Your task to perform on an android device: turn off sleep mode Image 0: 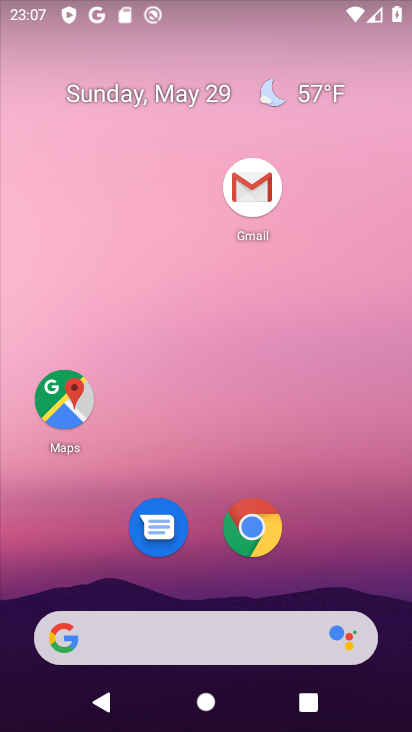
Step 0: drag from (327, 561) to (305, 43)
Your task to perform on an android device: turn off sleep mode Image 1: 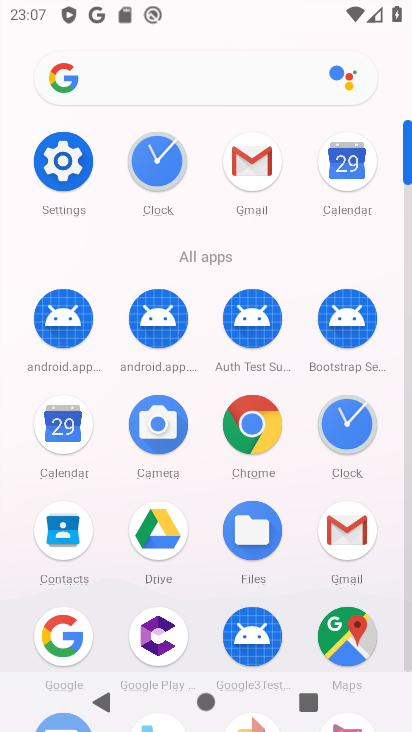
Step 1: click (65, 161)
Your task to perform on an android device: turn off sleep mode Image 2: 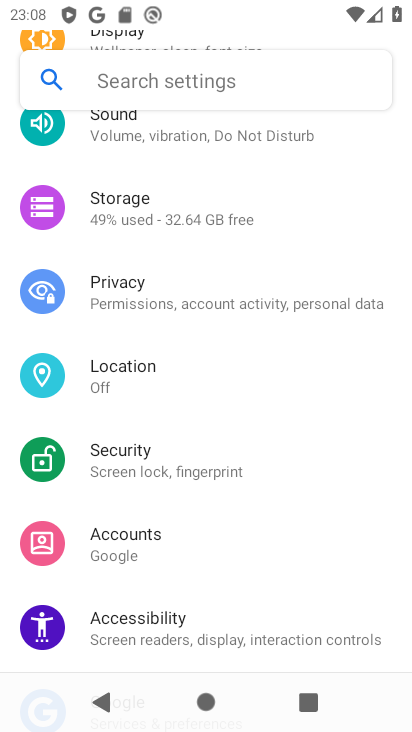
Step 2: drag from (275, 263) to (293, 372)
Your task to perform on an android device: turn off sleep mode Image 3: 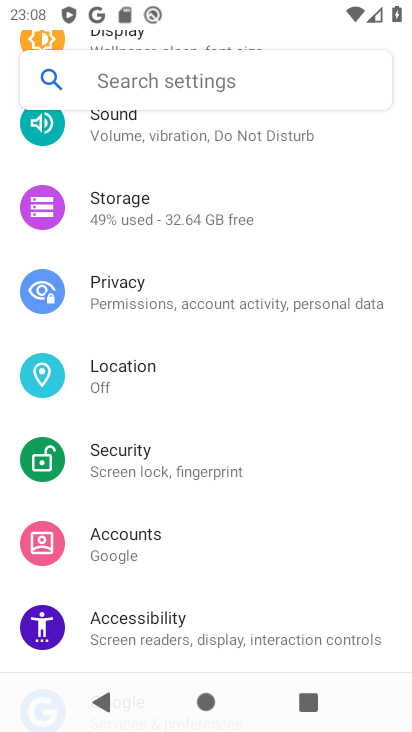
Step 3: click (178, 640)
Your task to perform on an android device: turn off sleep mode Image 4: 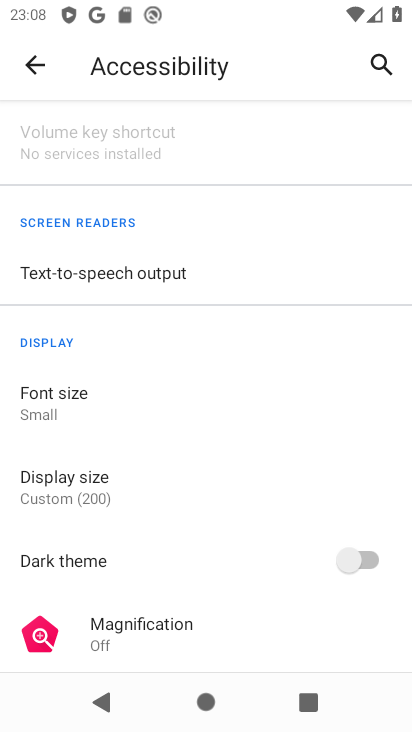
Step 4: click (34, 81)
Your task to perform on an android device: turn off sleep mode Image 5: 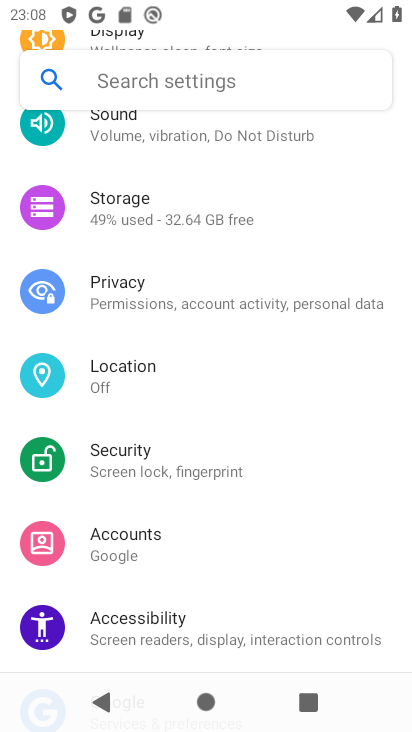
Step 5: drag from (244, 252) to (221, 405)
Your task to perform on an android device: turn off sleep mode Image 6: 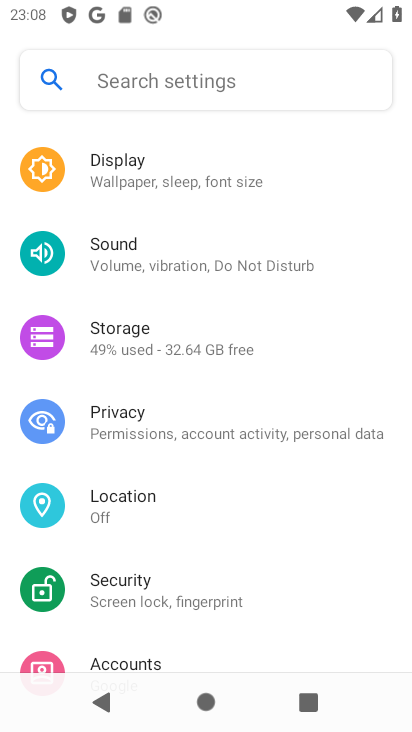
Step 6: drag from (216, 228) to (262, 373)
Your task to perform on an android device: turn off sleep mode Image 7: 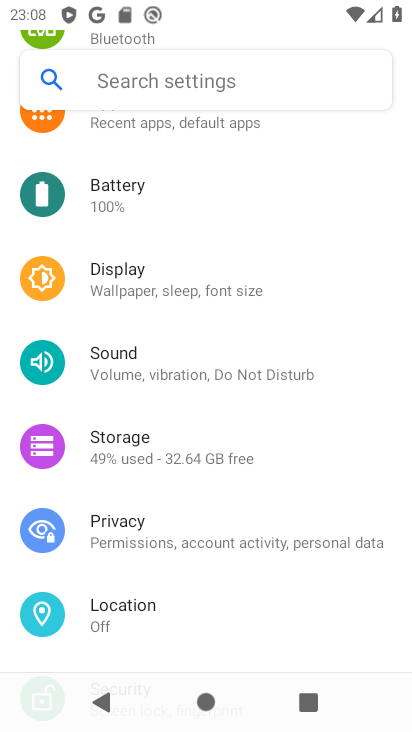
Step 7: click (154, 297)
Your task to perform on an android device: turn off sleep mode Image 8: 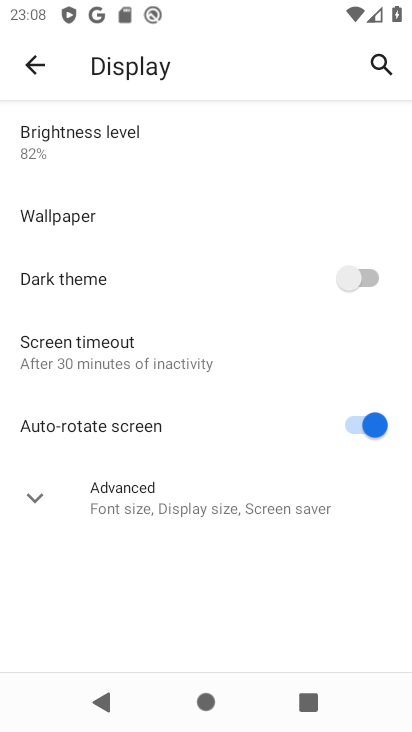
Step 8: click (142, 362)
Your task to perform on an android device: turn off sleep mode Image 9: 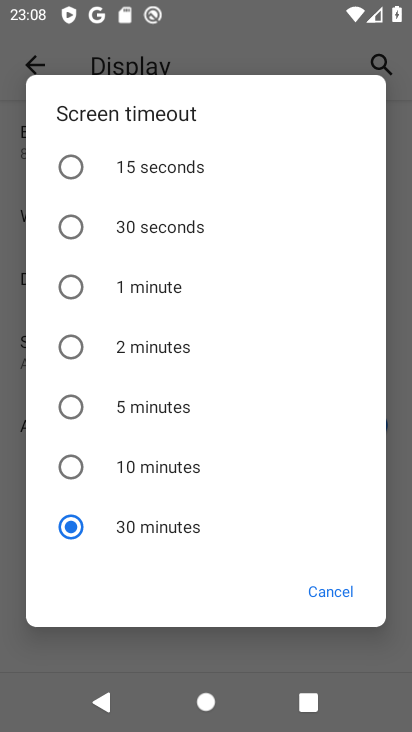
Step 9: drag from (163, 499) to (187, 351)
Your task to perform on an android device: turn off sleep mode Image 10: 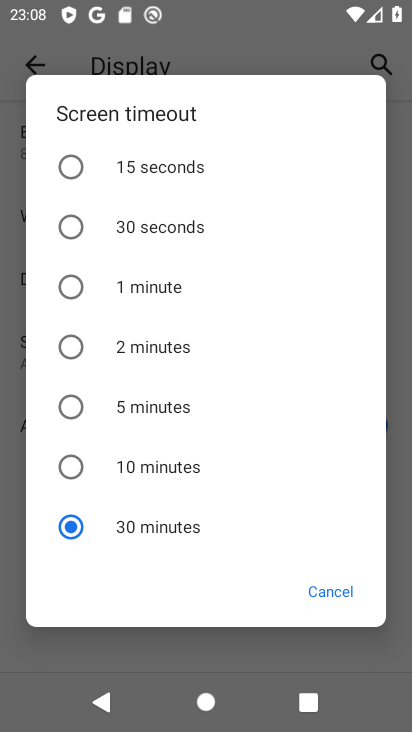
Step 10: drag from (175, 290) to (214, 444)
Your task to perform on an android device: turn off sleep mode Image 11: 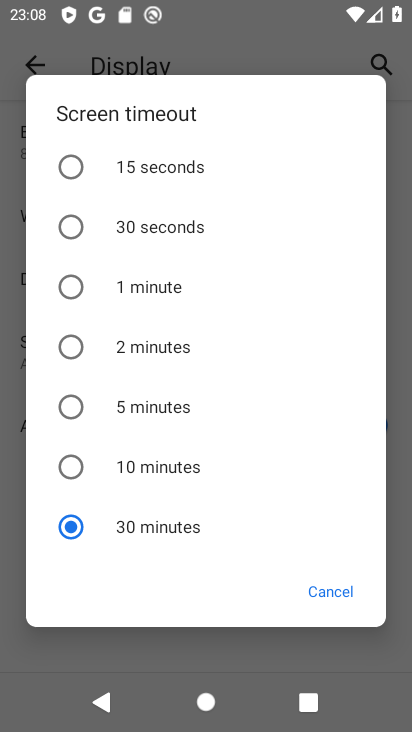
Step 11: click (318, 588)
Your task to perform on an android device: turn off sleep mode Image 12: 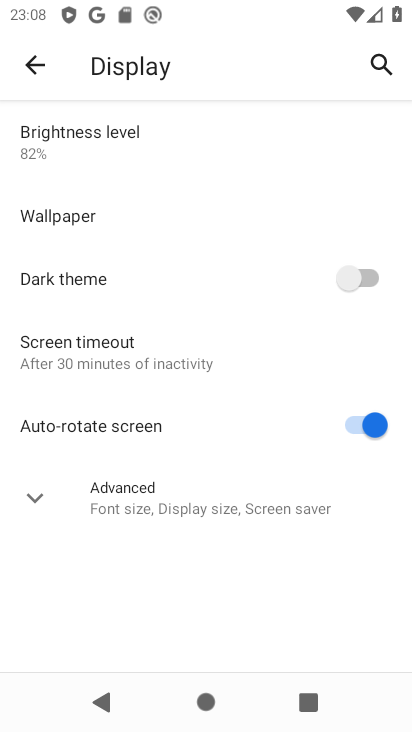
Step 12: click (151, 494)
Your task to perform on an android device: turn off sleep mode Image 13: 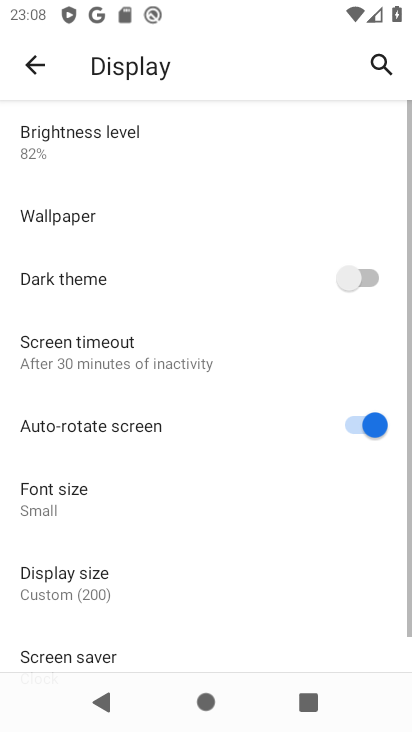
Step 13: task complete